Your task to perform on an android device: add a label to a message in the gmail app Image 0: 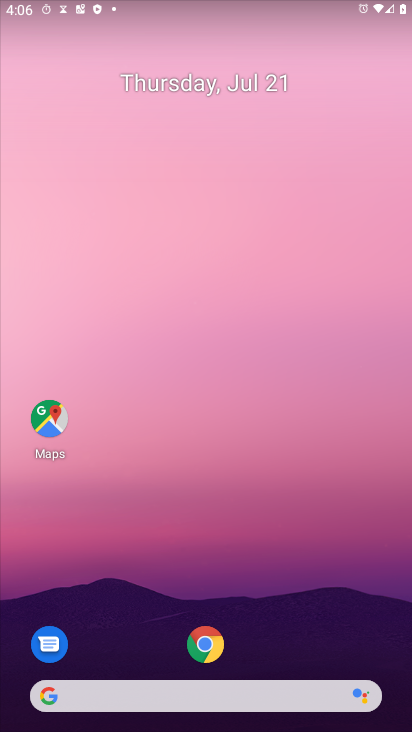
Step 0: press home button
Your task to perform on an android device: add a label to a message in the gmail app Image 1: 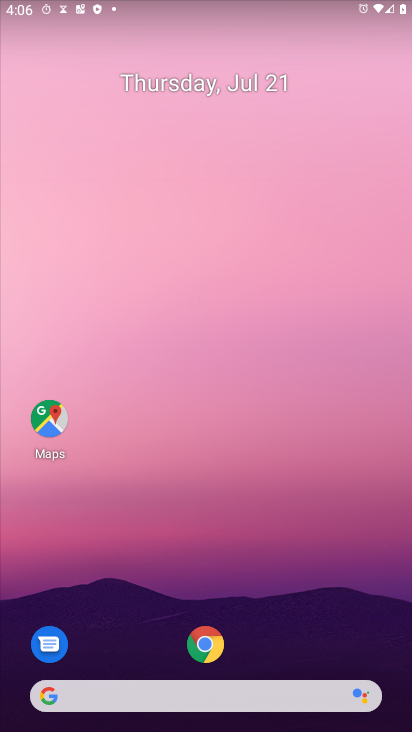
Step 1: drag from (295, 650) to (304, 102)
Your task to perform on an android device: add a label to a message in the gmail app Image 2: 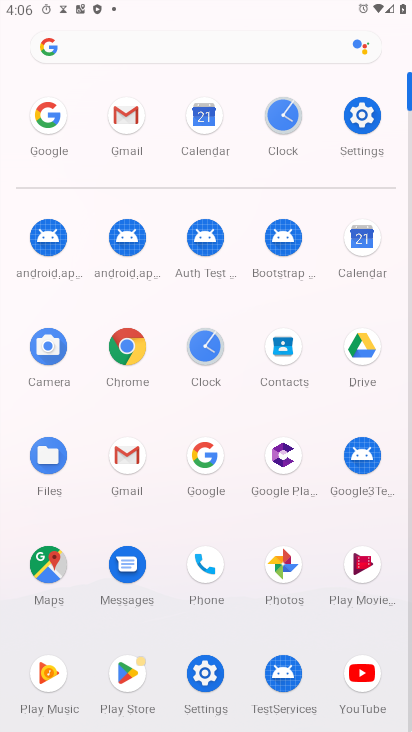
Step 2: click (131, 122)
Your task to perform on an android device: add a label to a message in the gmail app Image 3: 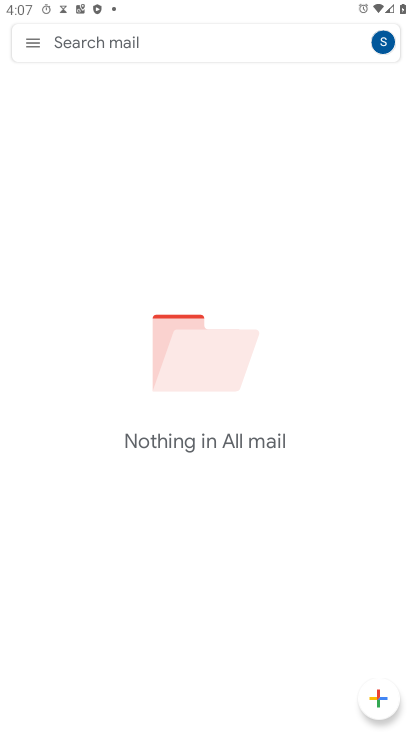
Step 3: click (32, 43)
Your task to perform on an android device: add a label to a message in the gmail app Image 4: 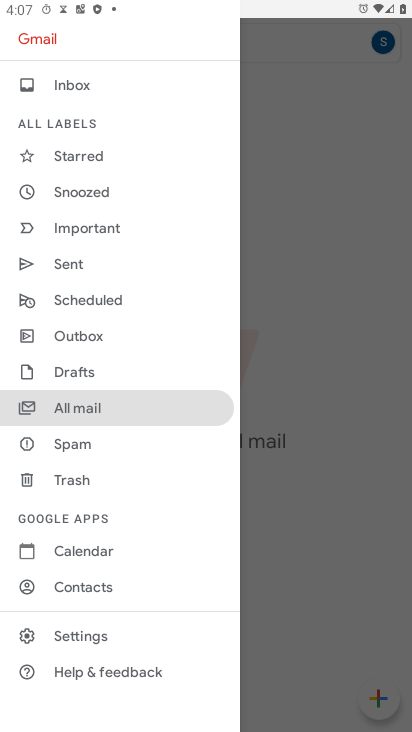
Step 4: click (99, 415)
Your task to perform on an android device: add a label to a message in the gmail app Image 5: 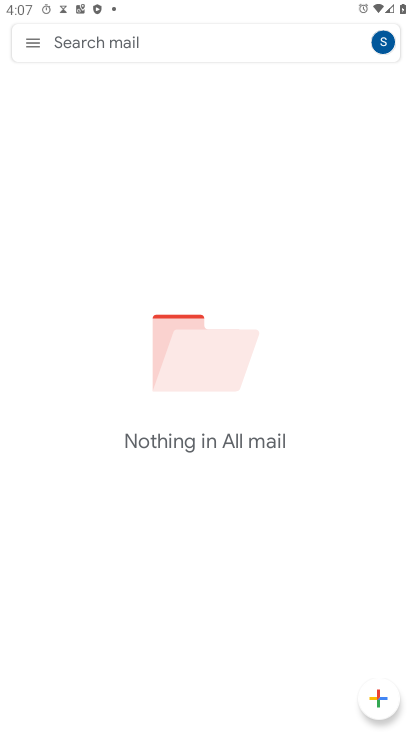
Step 5: task complete